Your task to perform on an android device: change the clock display to analog Image 0: 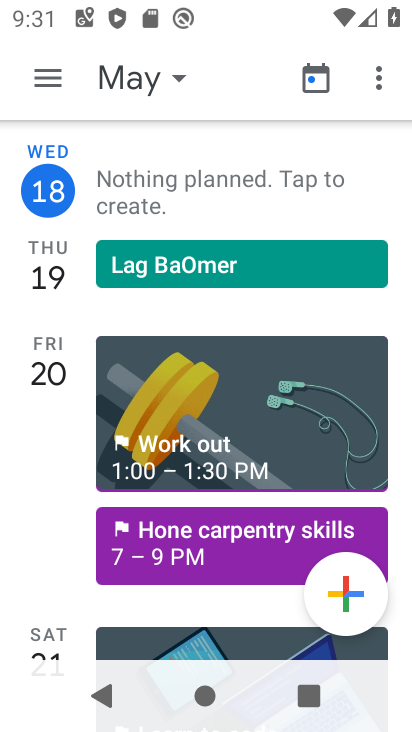
Step 0: press home button
Your task to perform on an android device: change the clock display to analog Image 1: 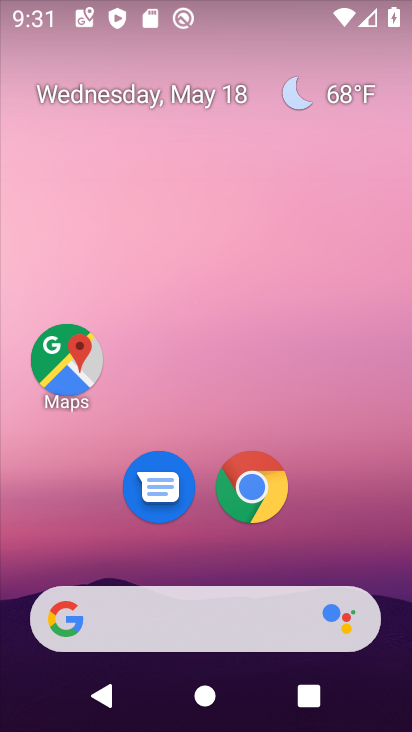
Step 1: drag from (360, 535) to (363, 231)
Your task to perform on an android device: change the clock display to analog Image 2: 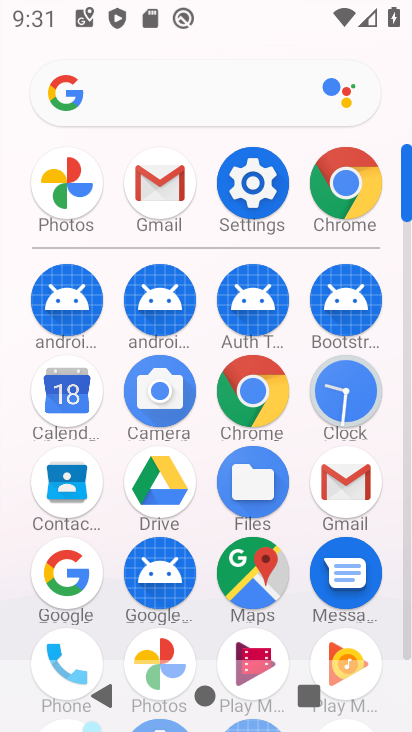
Step 2: click (337, 399)
Your task to perform on an android device: change the clock display to analog Image 3: 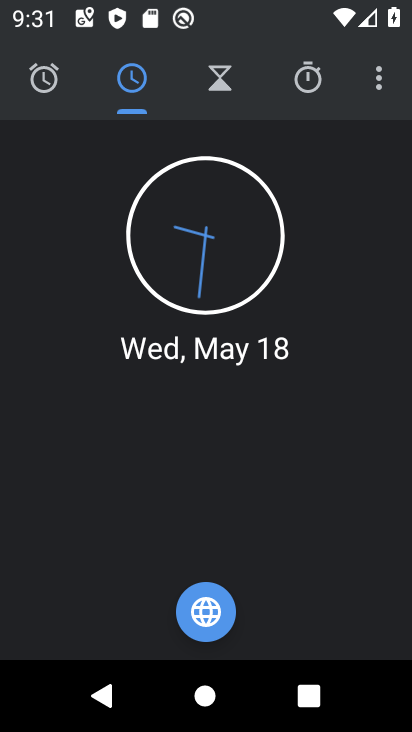
Step 3: task complete